Your task to perform on an android device: Open Wikipedia Image 0: 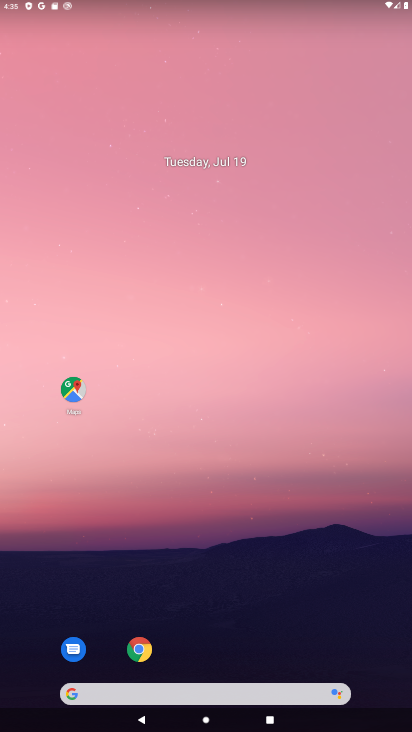
Step 0: drag from (206, 660) to (192, 12)
Your task to perform on an android device: Open Wikipedia Image 1: 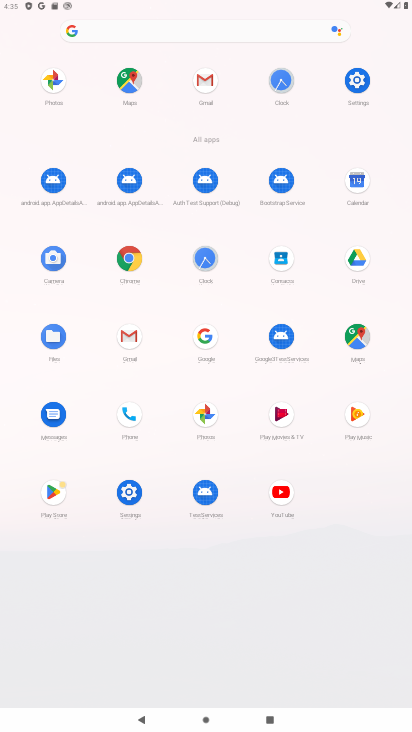
Step 1: click (125, 256)
Your task to perform on an android device: Open Wikipedia Image 2: 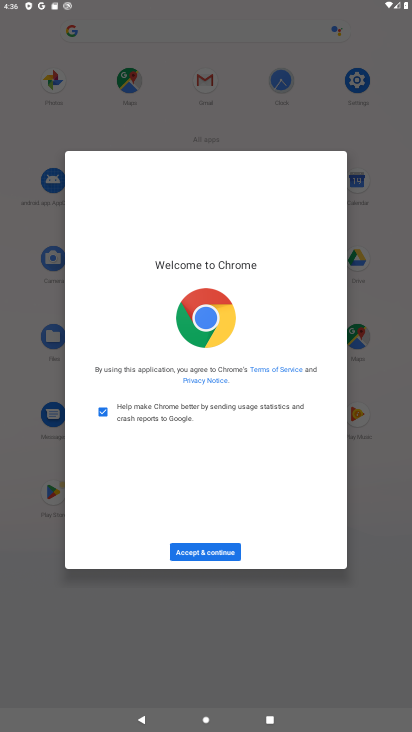
Step 2: click (206, 545)
Your task to perform on an android device: Open Wikipedia Image 3: 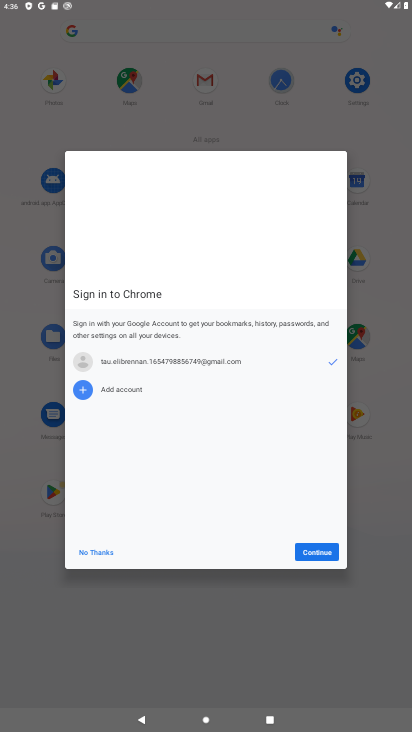
Step 3: click (309, 556)
Your task to perform on an android device: Open Wikipedia Image 4: 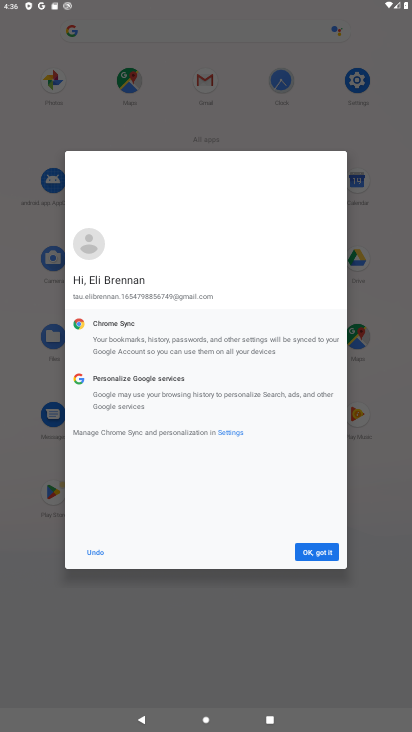
Step 4: click (320, 555)
Your task to perform on an android device: Open Wikipedia Image 5: 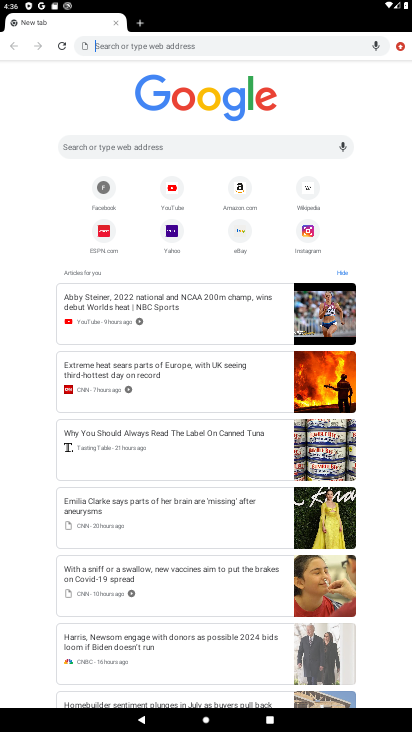
Step 5: click (311, 185)
Your task to perform on an android device: Open Wikipedia Image 6: 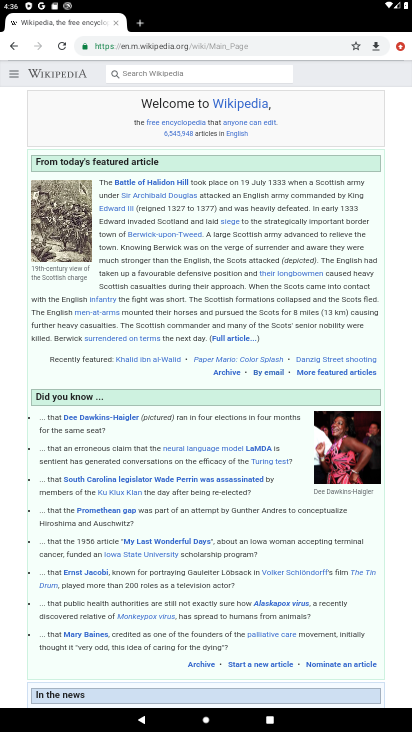
Step 6: task complete